Your task to perform on an android device: check google app version Image 0: 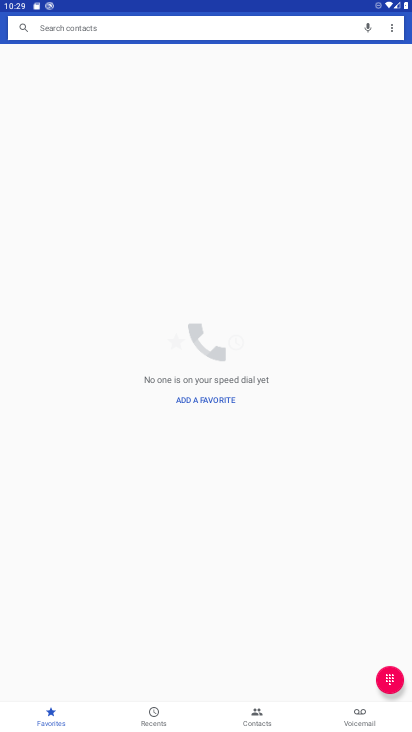
Step 0: press home button
Your task to perform on an android device: check google app version Image 1: 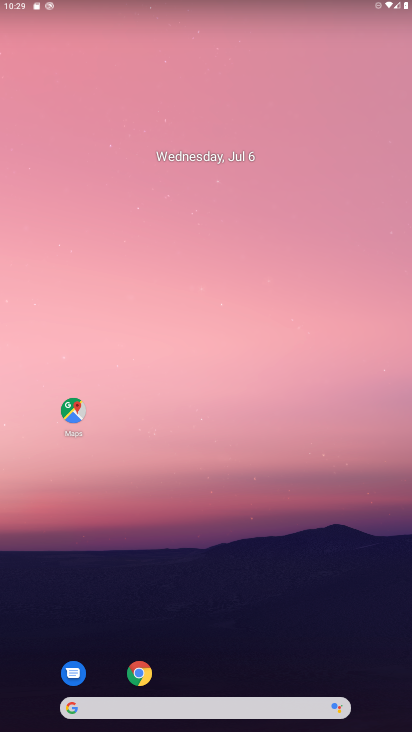
Step 1: click (72, 712)
Your task to perform on an android device: check google app version Image 2: 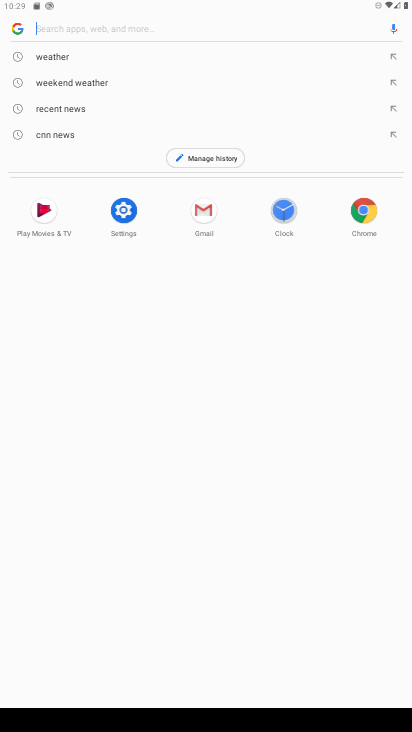
Step 2: click (19, 26)
Your task to perform on an android device: check google app version Image 3: 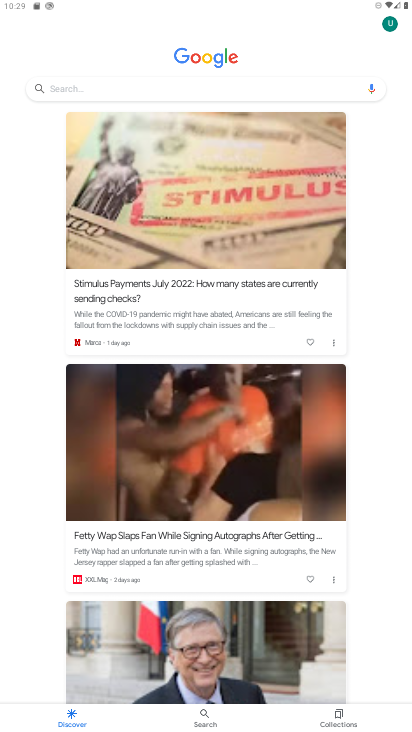
Step 3: click (340, 715)
Your task to perform on an android device: check google app version Image 4: 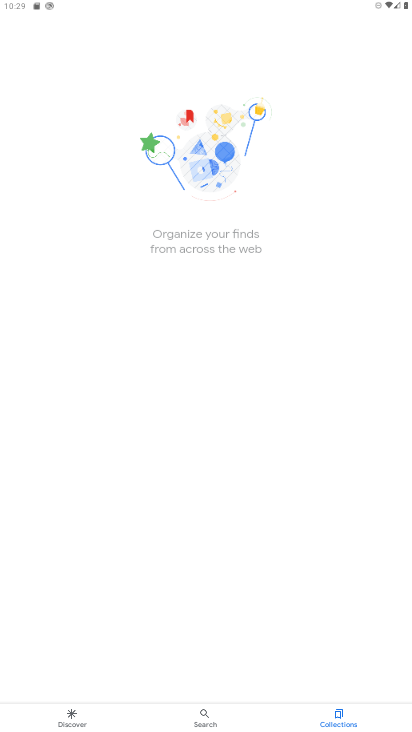
Step 4: click (204, 723)
Your task to perform on an android device: check google app version Image 5: 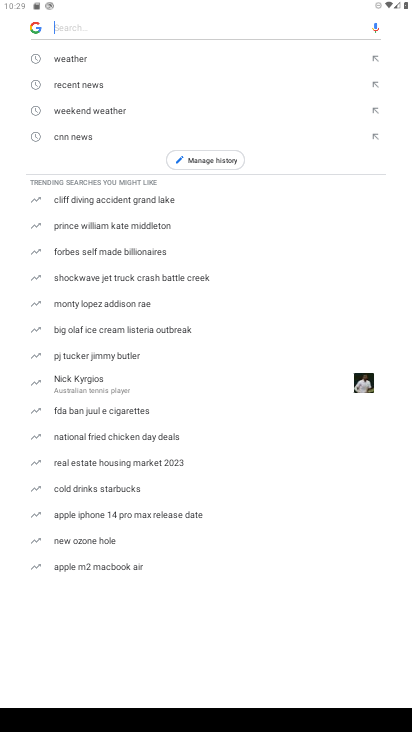
Step 5: click (80, 718)
Your task to perform on an android device: check google app version Image 6: 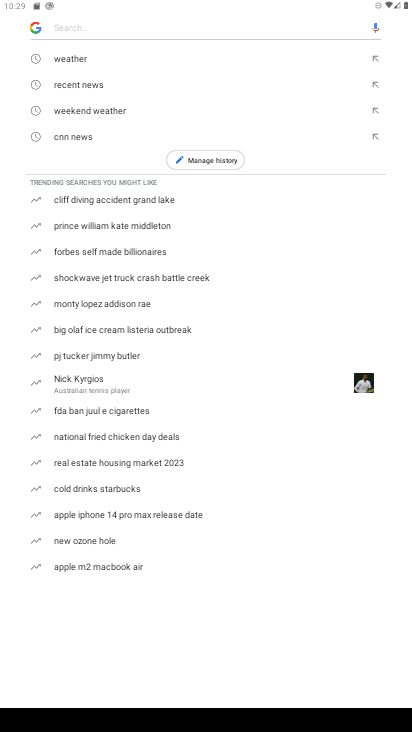
Step 6: press back button
Your task to perform on an android device: check google app version Image 7: 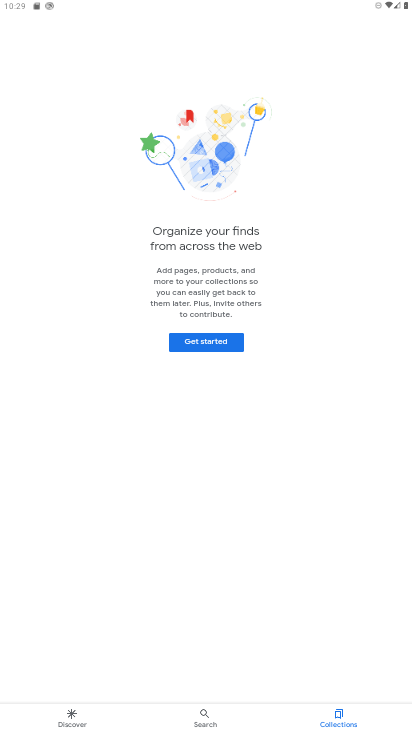
Step 7: click (66, 714)
Your task to perform on an android device: check google app version Image 8: 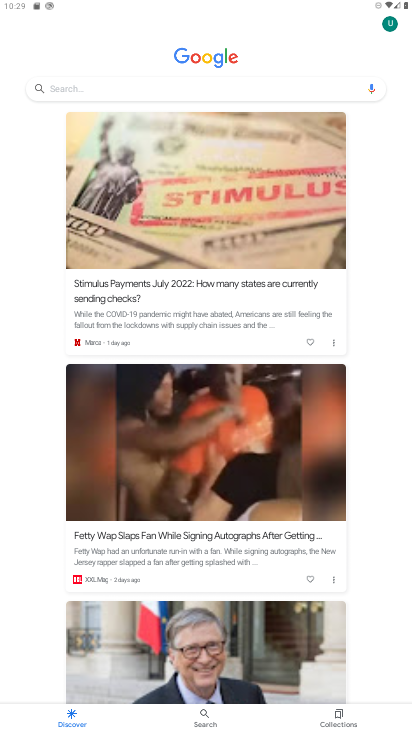
Step 8: click (391, 30)
Your task to perform on an android device: check google app version Image 9: 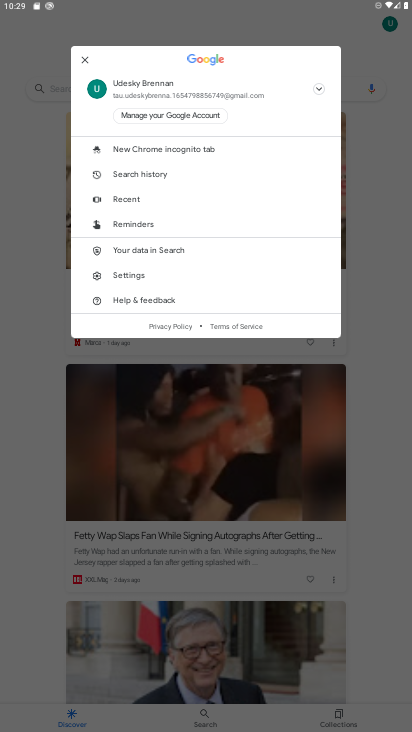
Step 9: click (121, 270)
Your task to perform on an android device: check google app version Image 10: 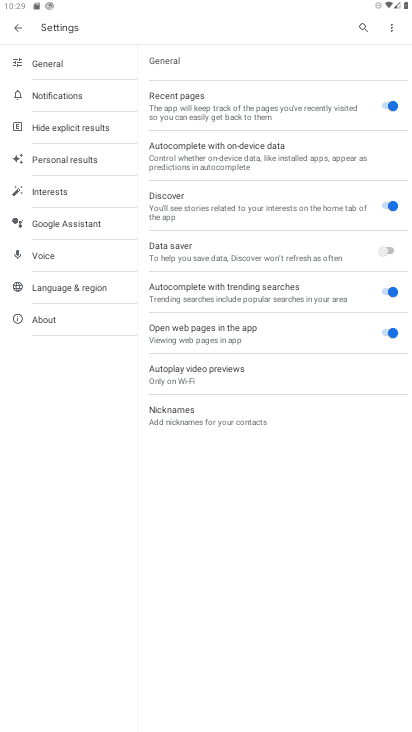
Step 10: click (62, 312)
Your task to perform on an android device: check google app version Image 11: 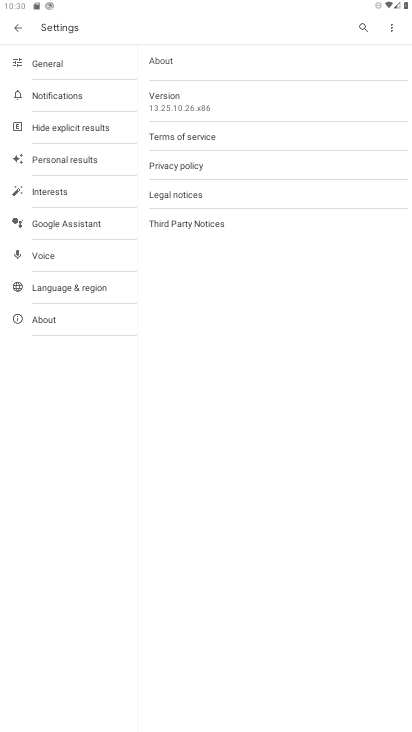
Step 11: click (238, 93)
Your task to perform on an android device: check google app version Image 12: 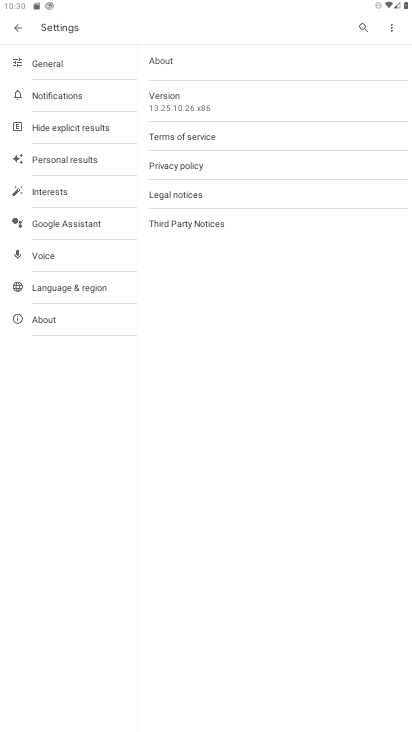
Step 12: task complete